Your task to perform on an android device: change text size in settings app Image 0: 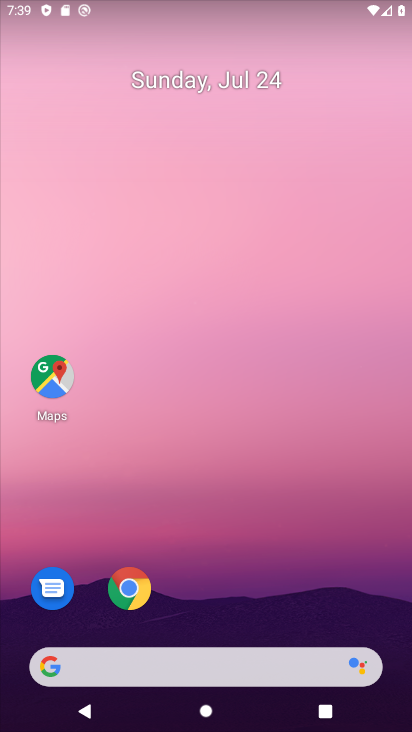
Step 0: drag from (154, 617) to (130, 27)
Your task to perform on an android device: change text size in settings app Image 1: 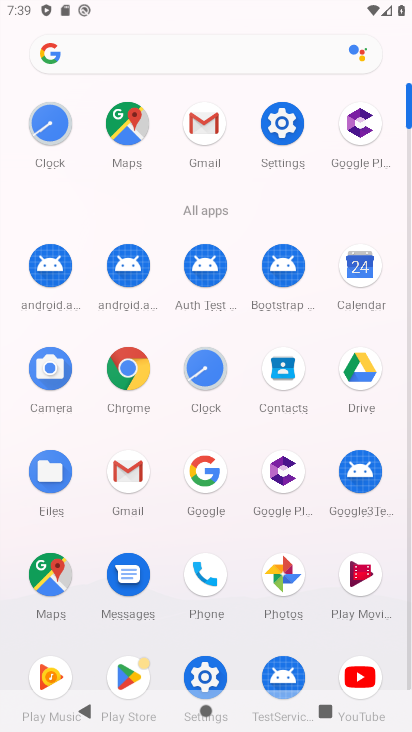
Step 1: click (296, 124)
Your task to perform on an android device: change text size in settings app Image 2: 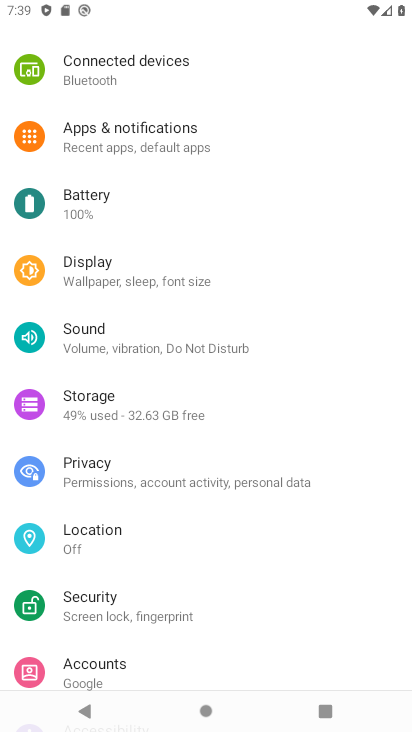
Step 2: click (169, 282)
Your task to perform on an android device: change text size in settings app Image 3: 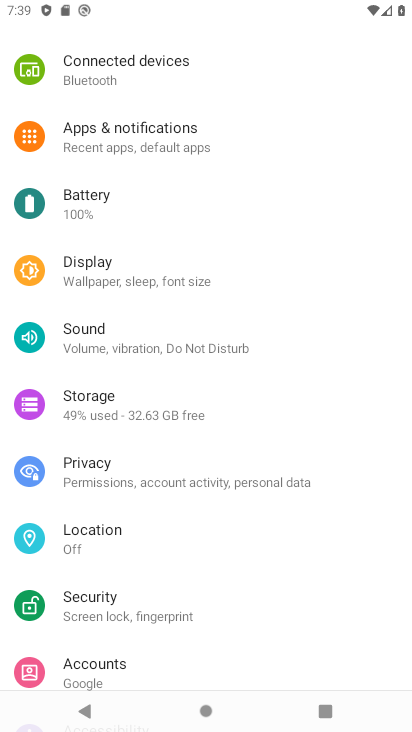
Step 3: click (169, 282)
Your task to perform on an android device: change text size in settings app Image 4: 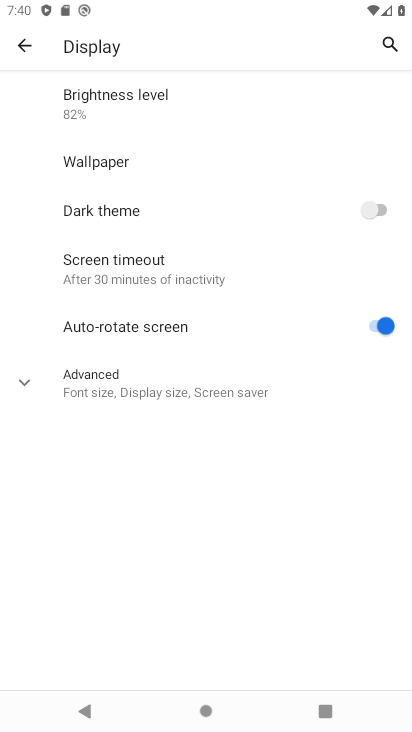
Step 4: click (225, 385)
Your task to perform on an android device: change text size in settings app Image 5: 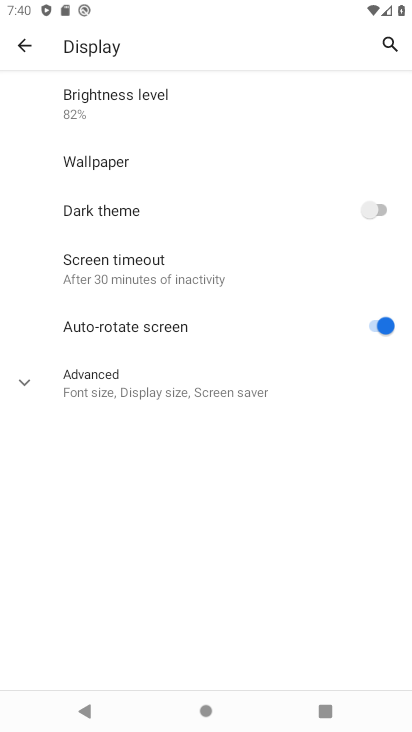
Step 5: click (225, 385)
Your task to perform on an android device: change text size in settings app Image 6: 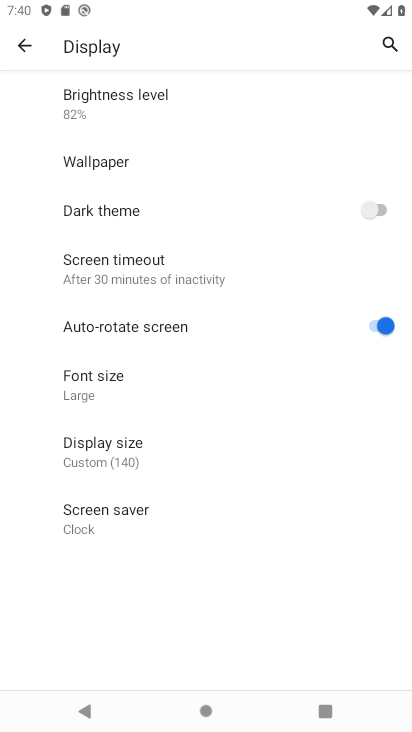
Step 6: click (109, 391)
Your task to perform on an android device: change text size in settings app Image 7: 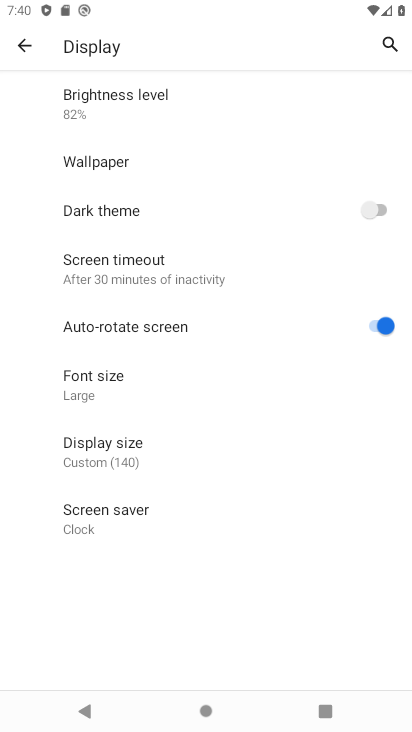
Step 7: click (109, 391)
Your task to perform on an android device: change text size in settings app Image 8: 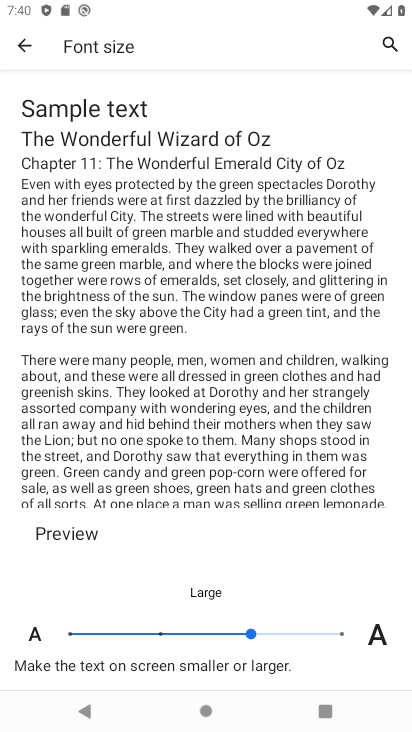
Step 8: click (341, 633)
Your task to perform on an android device: change text size in settings app Image 9: 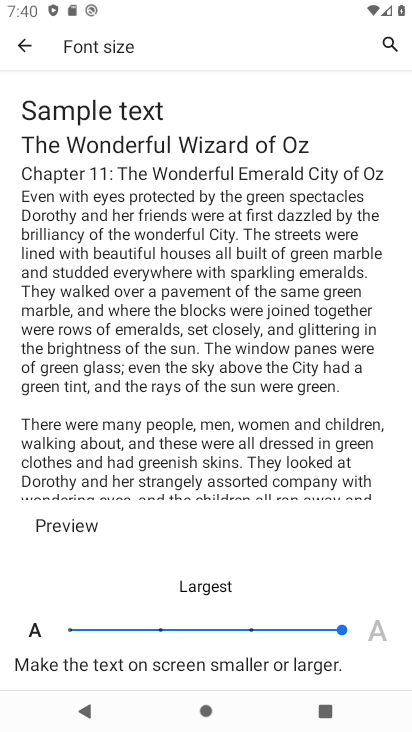
Step 9: task complete